Your task to perform on an android device: Open my contact list Image 0: 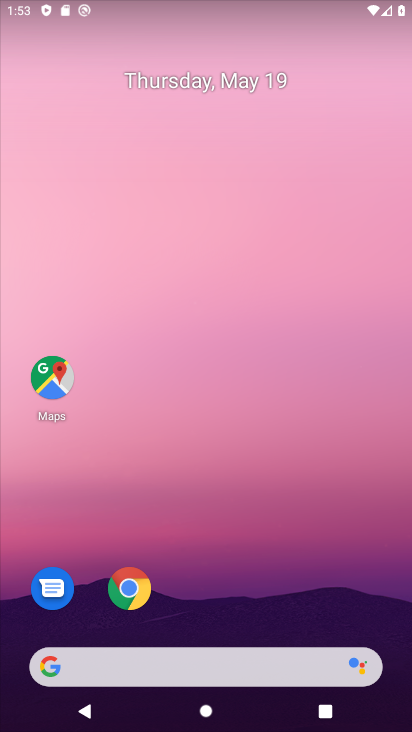
Step 0: drag from (216, 585) to (244, 85)
Your task to perform on an android device: Open my contact list Image 1: 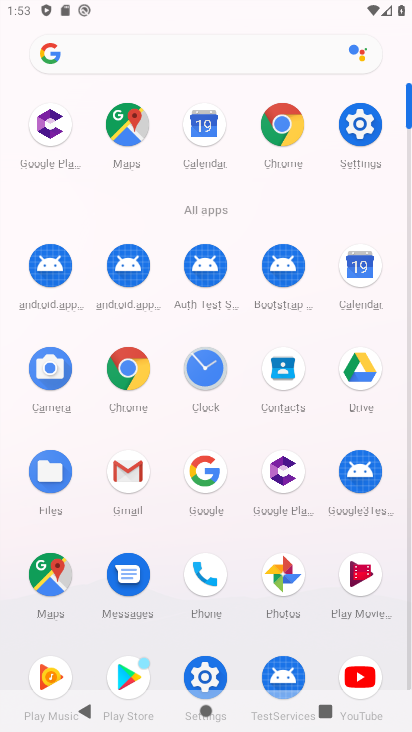
Step 1: click (286, 362)
Your task to perform on an android device: Open my contact list Image 2: 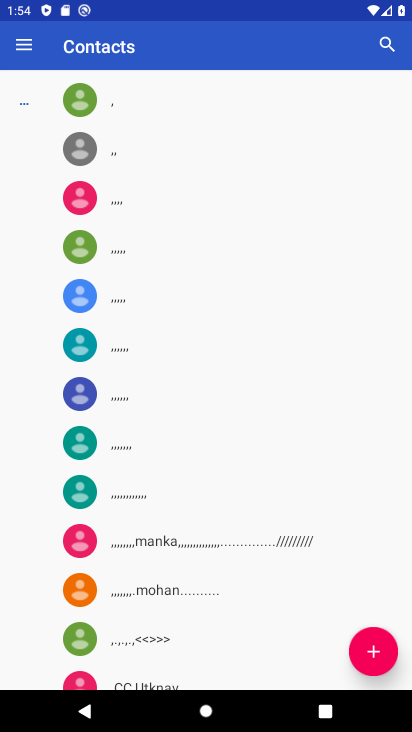
Step 2: task complete